Your task to perform on an android device: choose inbox layout in the gmail app Image 0: 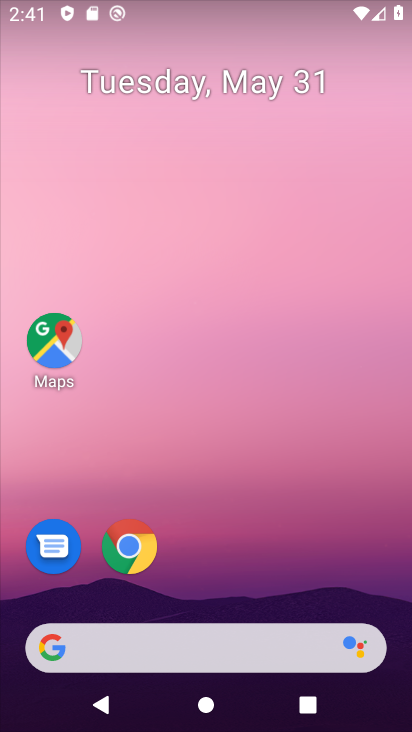
Step 0: drag from (289, 564) to (232, 72)
Your task to perform on an android device: choose inbox layout in the gmail app Image 1: 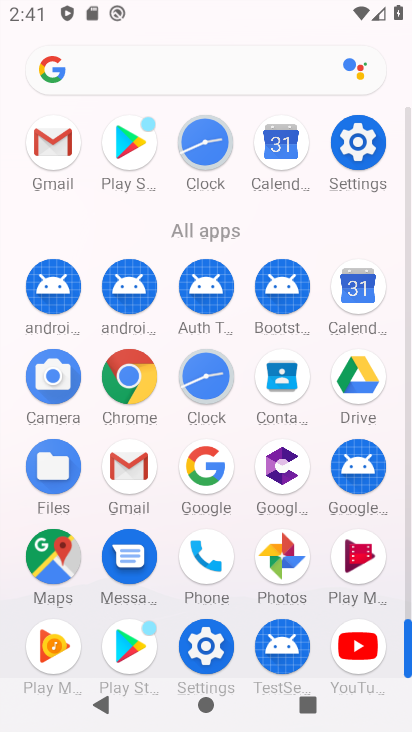
Step 1: click (59, 148)
Your task to perform on an android device: choose inbox layout in the gmail app Image 2: 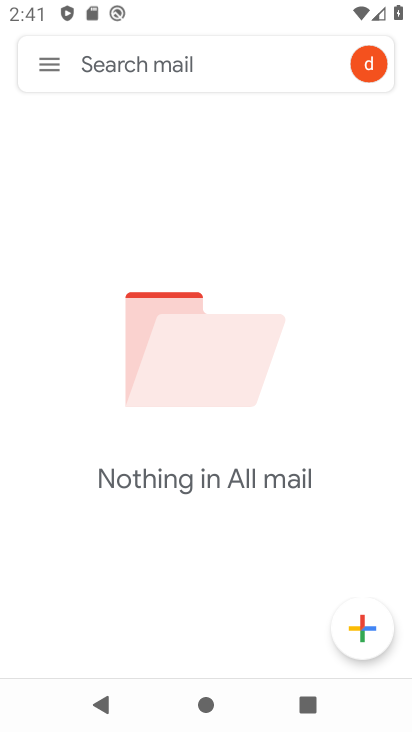
Step 2: click (51, 61)
Your task to perform on an android device: choose inbox layout in the gmail app Image 3: 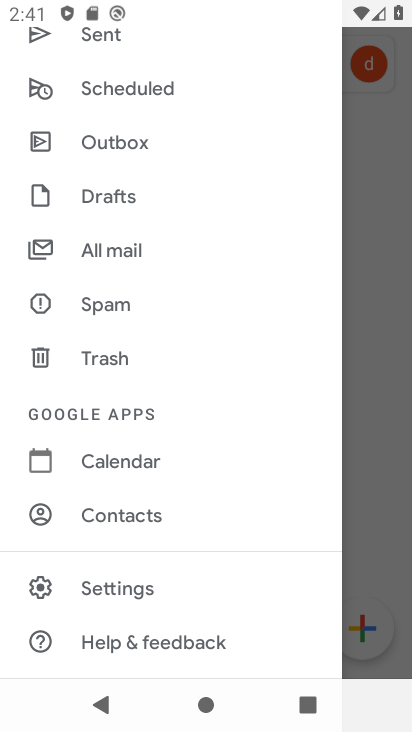
Step 3: drag from (190, 220) to (206, 181)
Your task to perform on an android device: choose inbox layout in the gmail app Image 4: 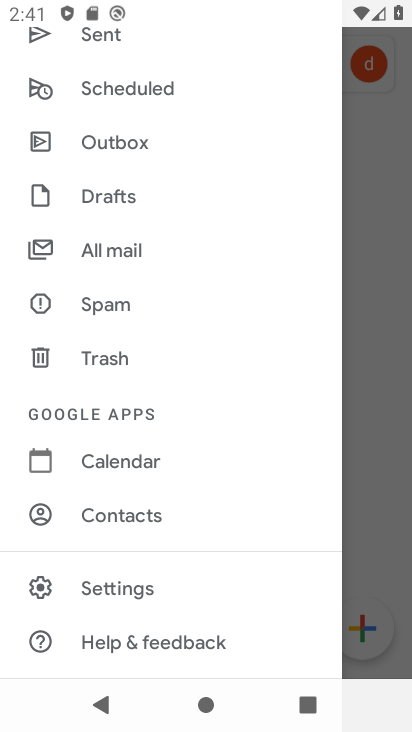
Step 4: click (128, 577)
Your task to perform on an android device: choose inbox layout in the gmail app Image 5: 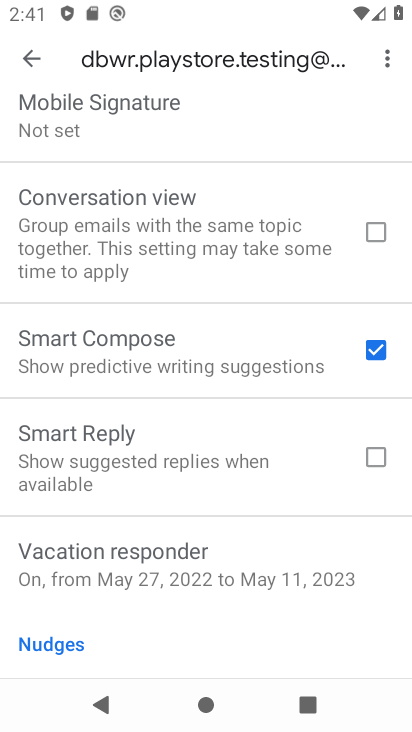
Step 5: drag from (258, 192) to (242, 662)
Your task to perform on an android device: choose inbox layout in the gmail app Image 6: 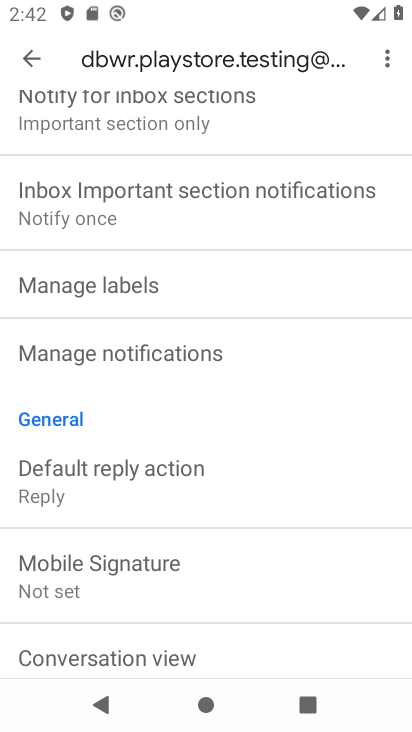
Step 6: drag from (226, 265) to (201, 695)
Your task to perform on an android device: choose inbox layout in the gmail app Image 7: 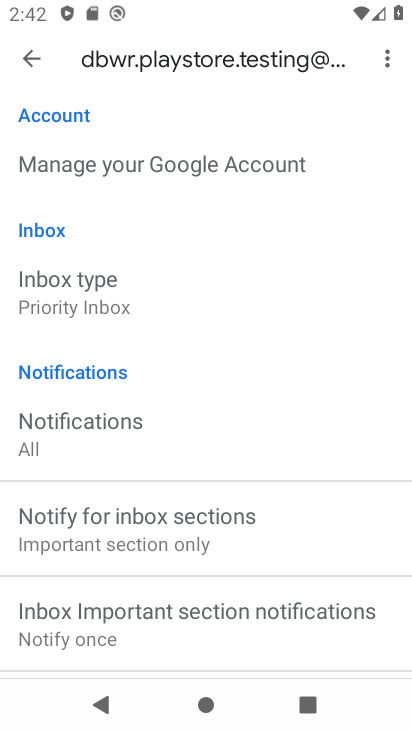
Step 7: click (103, 289)
Your task to perform on an android device: choose inbox layout in the gmail app Image 8: 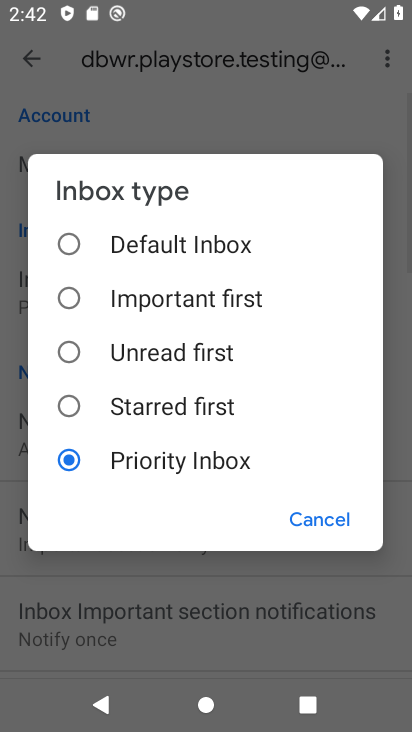
Step 8: click (98, 235)
Your task to perform on an android device: choose inbox layout in the gmail app Image 9: 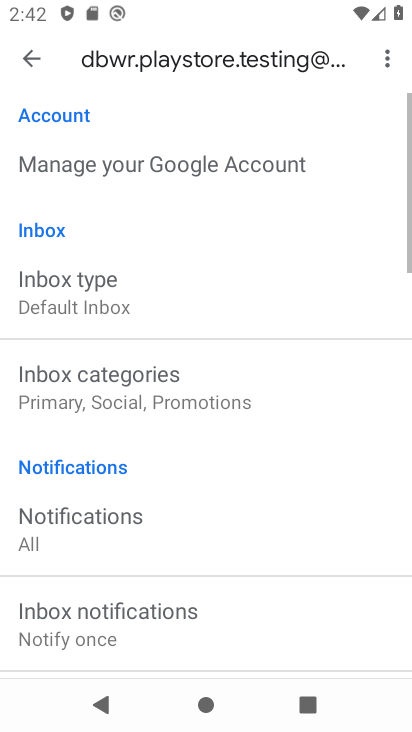
Step 9: task complete